Your task to perform on an android device: install app "Yahoo Mail" Image 0: 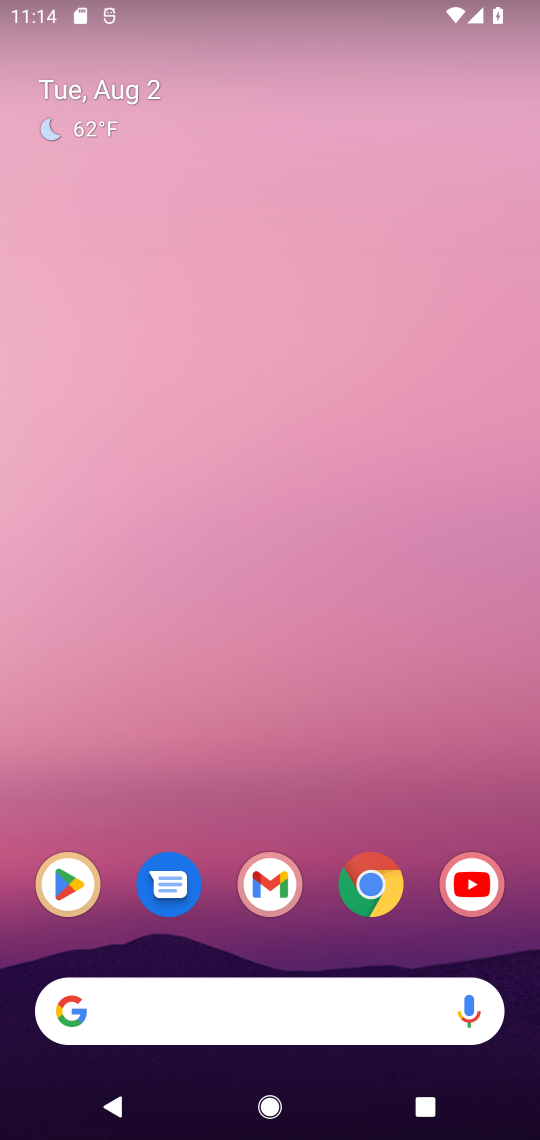
Step 0: click (59, 926)
Your task to perform on an android device: install app "Yahoo Mail" Image 1: 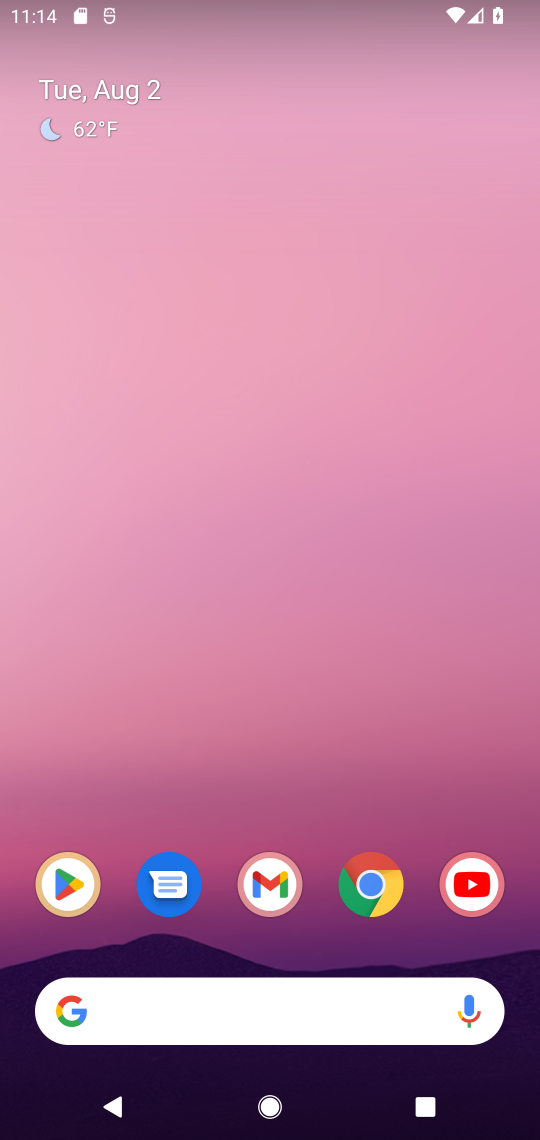
Step 1: click (65, 886)
Your task to perform on an android device: install app "Yahoo Mail" Image 2: 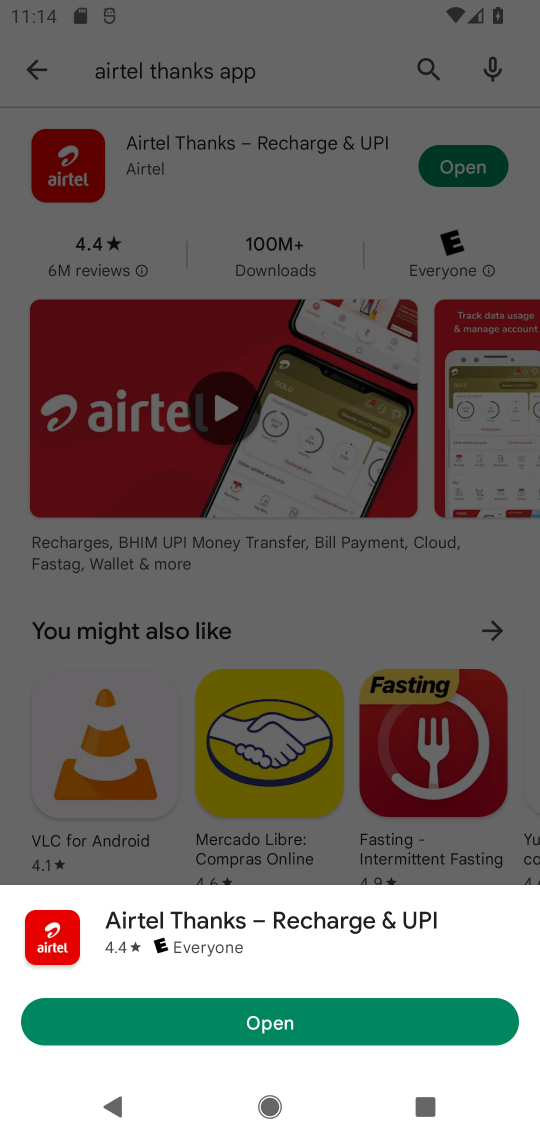
Step 2: click (223, 67)
Your task to perform on an android device: install app "Yahoo Mail" Image 3: 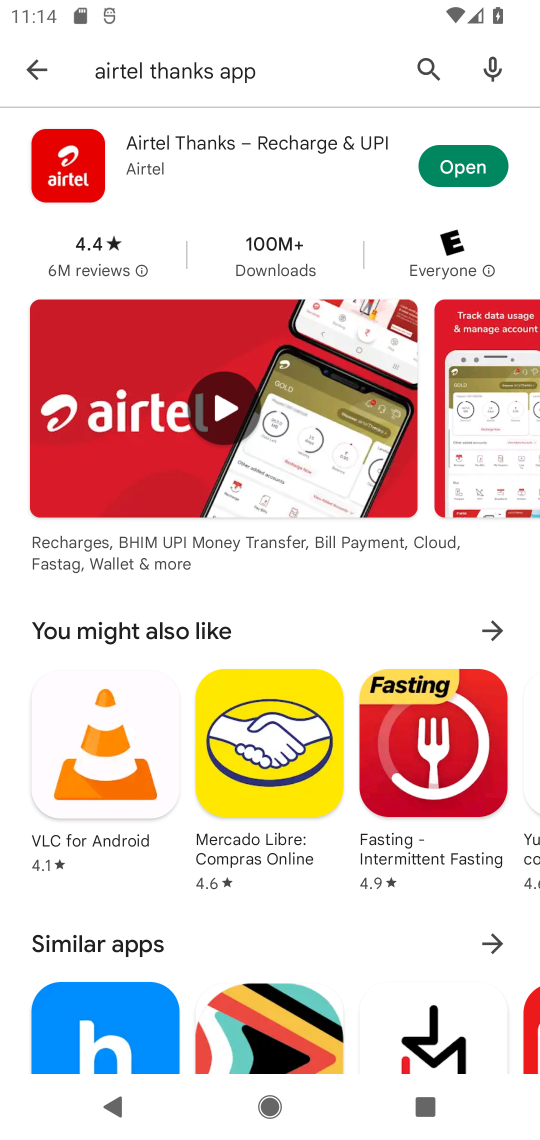
Step 3: click (222, 71)
Your task to perform on an android device: install app "Yahoo Mail" Image 4: 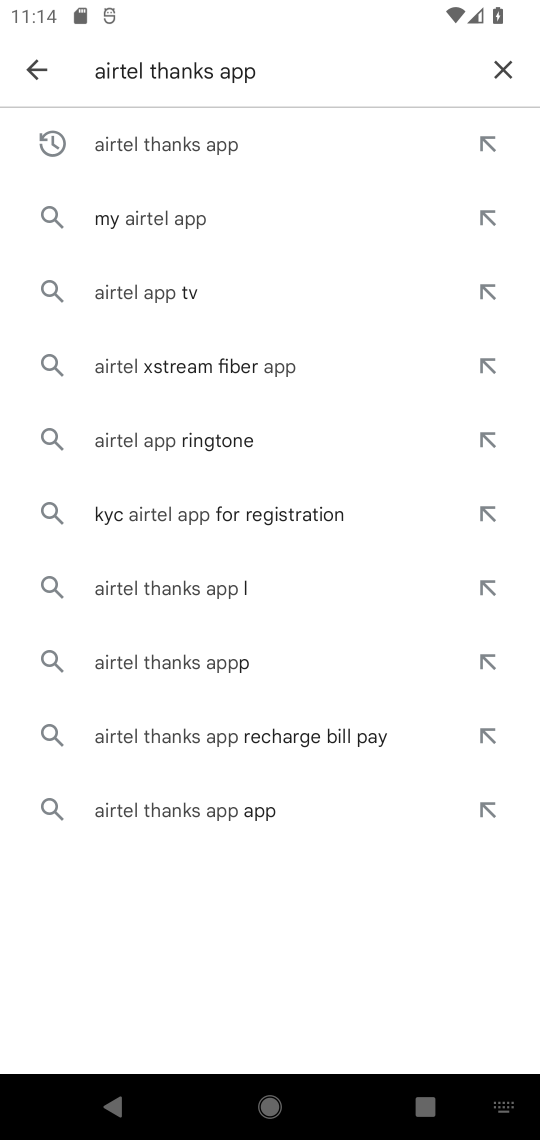
Step 4: click (489, 70)
Your task to perform on an android device: install app "Yahoo Mail" Image 5: 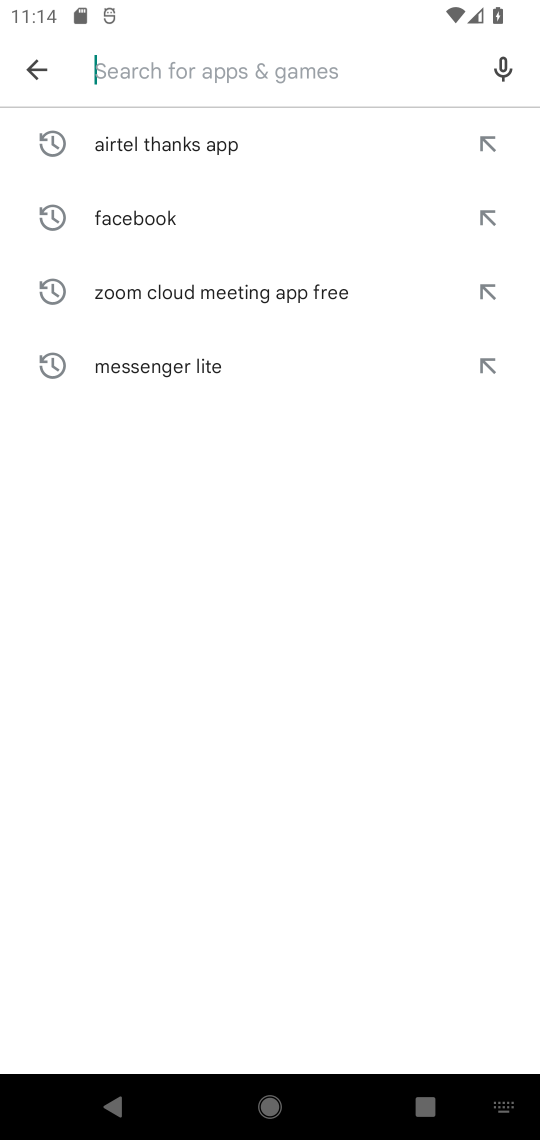
Step 5: type "yahoo mail"
Your task to perform on an android device: install app "Yahoo Mail" Image 6: 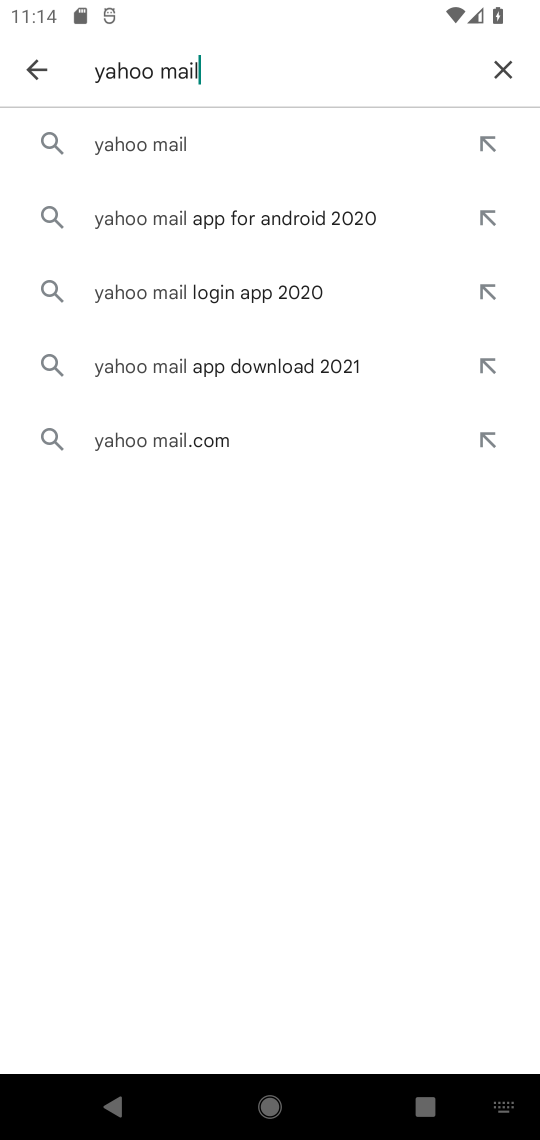
Step 6: click (183, 152)
Your task to perform on an android device: install app "Yahoo Mail" Image 7: 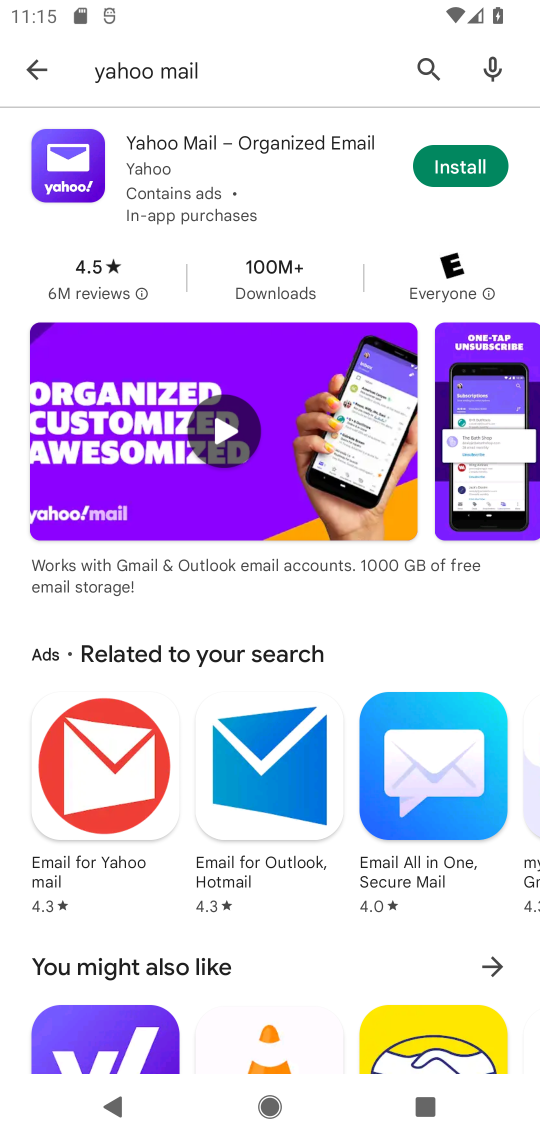
Step 7: click (473, 159)
Your task to perform on an android device: install app "Yahoo Mail" Image 8: 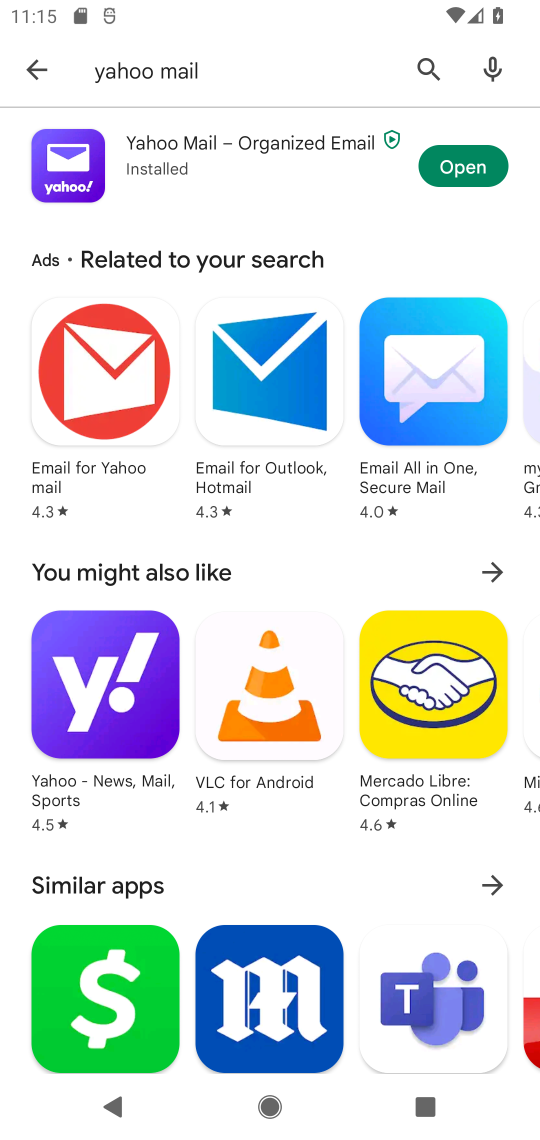
Step 8: task complete